Your task to perform on an android device: turn off javascript in the chrome app Image 0: 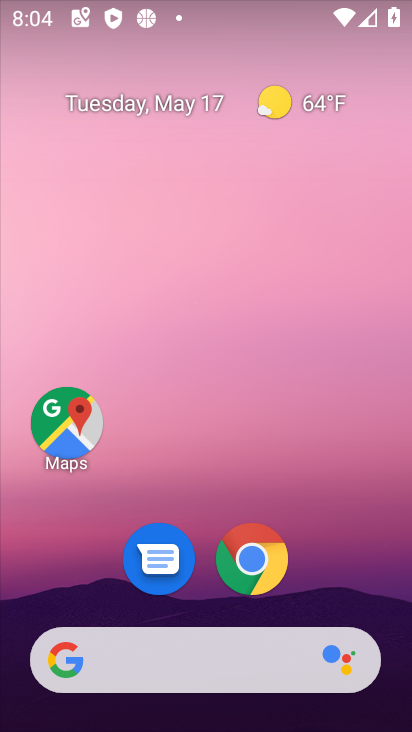
Step 0: click (269, 541)
Your task to perform on an android device: turn off javascript in the chrome app Image 1: 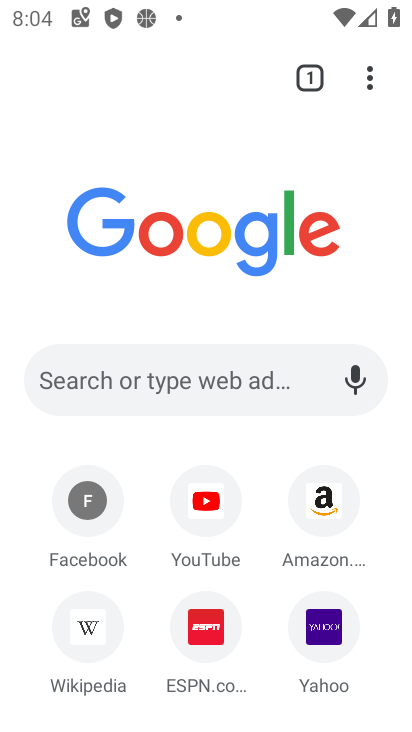
Step 1: click (368, 97)
Your task to perform on an android device: turn off javascript in the chrome app Image 2: 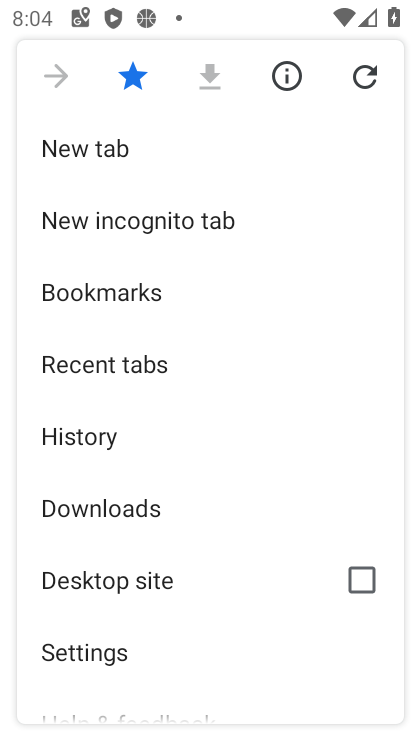
Step 2: click (99, 645)
Your task to perform on an android device: turn off javascript in the chrome app Image 3: 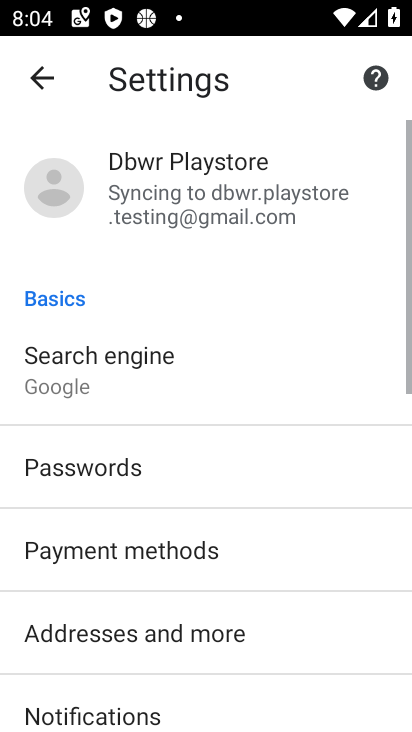
Step 3: drag from (98, 644) to (68, 235)
Your task to perform on an android device: turn off javascript in the chrome app Image 4: 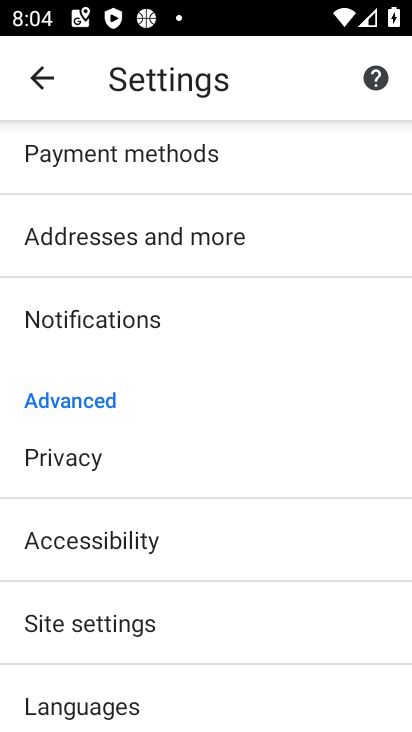
Step 4: click (122, 611)
Your task to perform on an android device: turn off javascript in the chrome app Image 5: 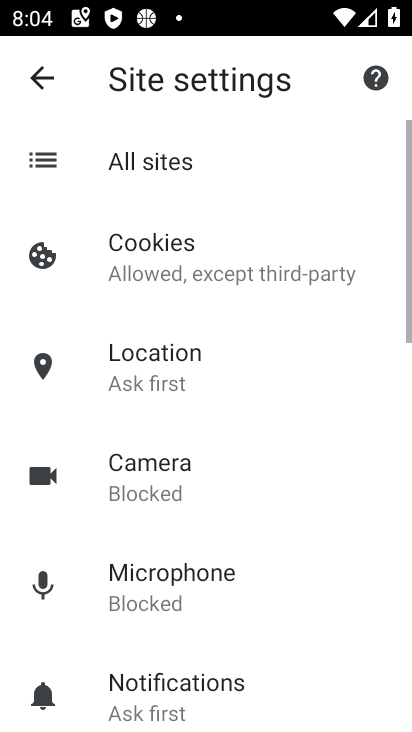
Step 5: drag from (122, 611) to (63, 177)
Your task to perform on an android device: turn off javascript in the chrome app Image 6: 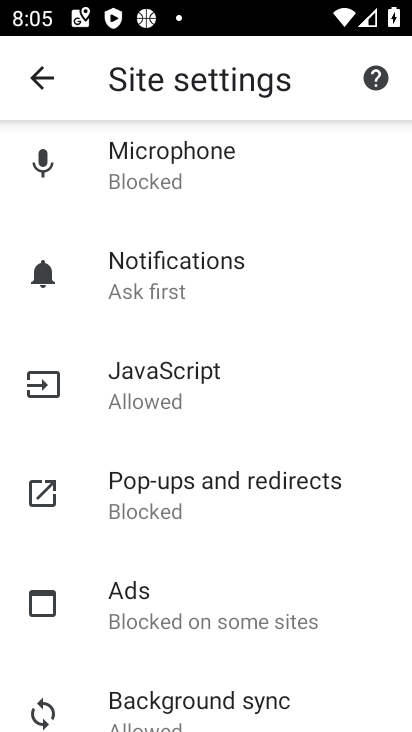
Step 6: click (164, 399)
Your task to perform on an android device: turn off javascript in the chrome app Image 7: 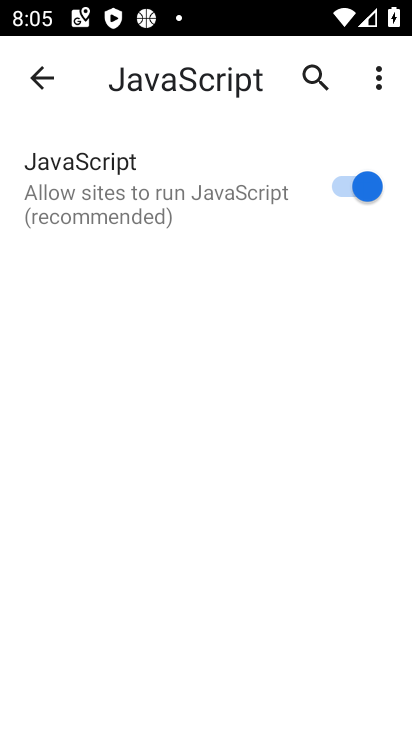
Step 7: click (354, 183)
Your task to perform on an android device: turn off javascript in the chrome app Image 8: 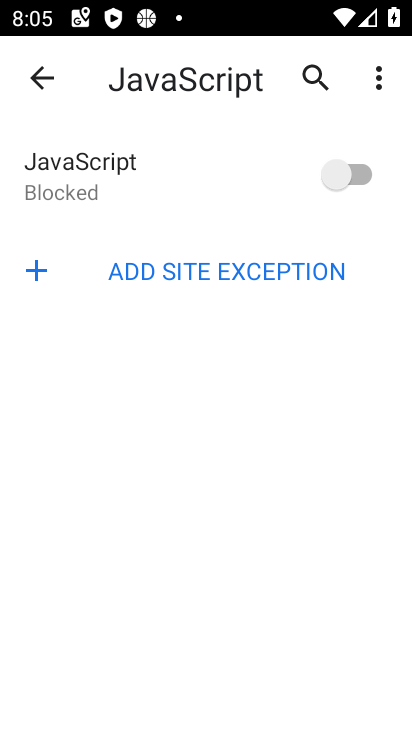
Step 8: task complete